Your task to perform on an android device: turn on data saver in the chrome app Image 0: 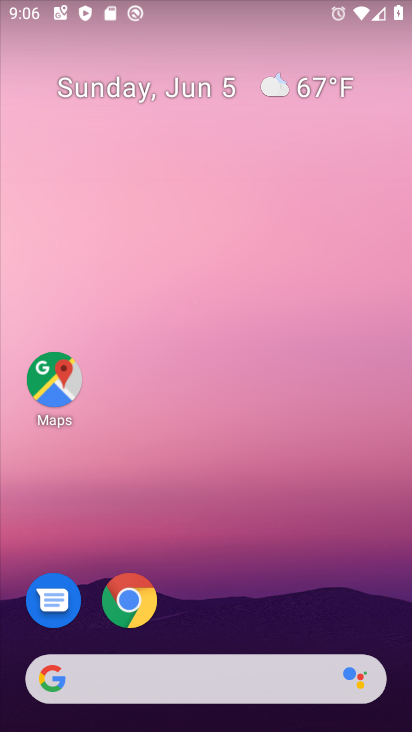
Step 0: drag from (359, 611) to (323, 86)
Your task to perform on an android device: turn on data saver in the chrome app Image 1: 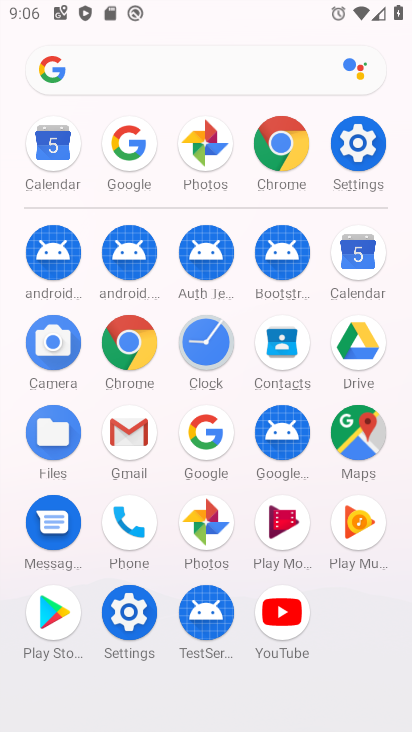
Step 1: click (285, 160)
Your task to perform on an android device: turn on data saver in the chrome app Image 2: 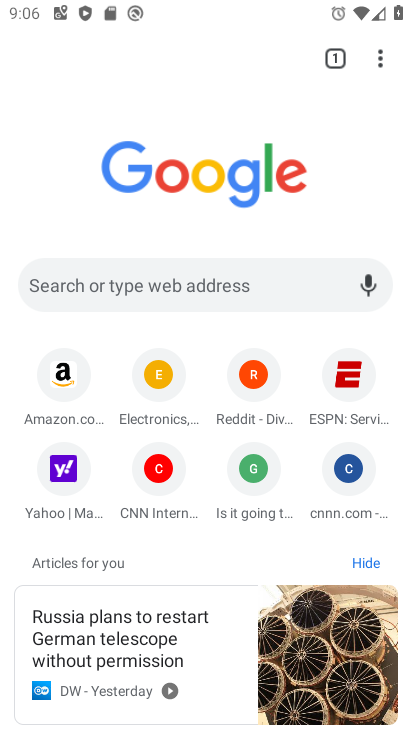
Step 2: click (383, 59)
Your task to perform on an android device: turn on data saver in the chrome app Image 3: 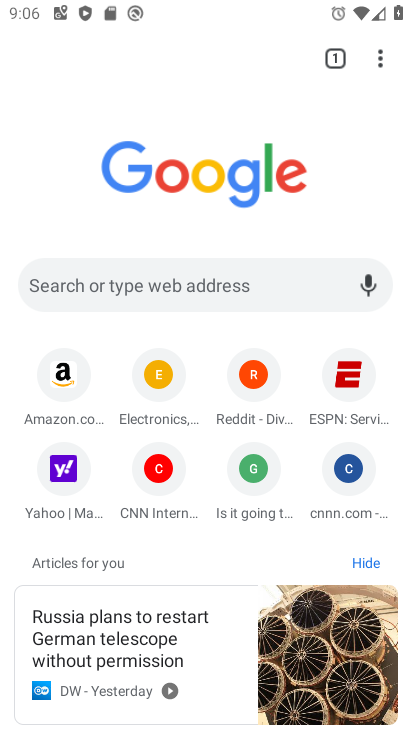
Step 3: click (379, 49)
Your task to perform on an android device: turn on data saver in the chrome app Image 4: 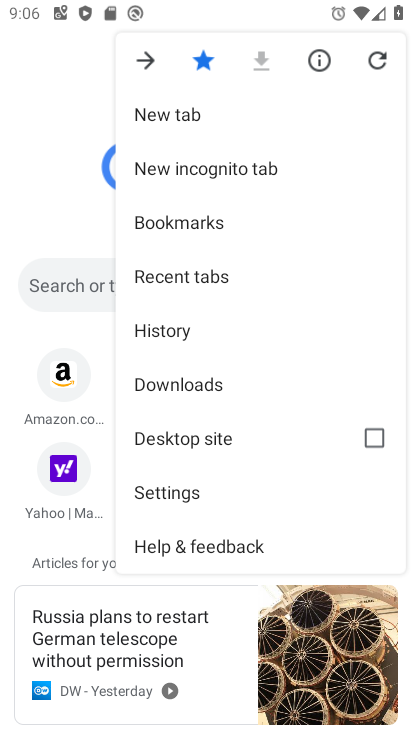
Step 4: click (215, 491)
Your task to perform on an android device: turn on data saver in the chrome app Image 5: 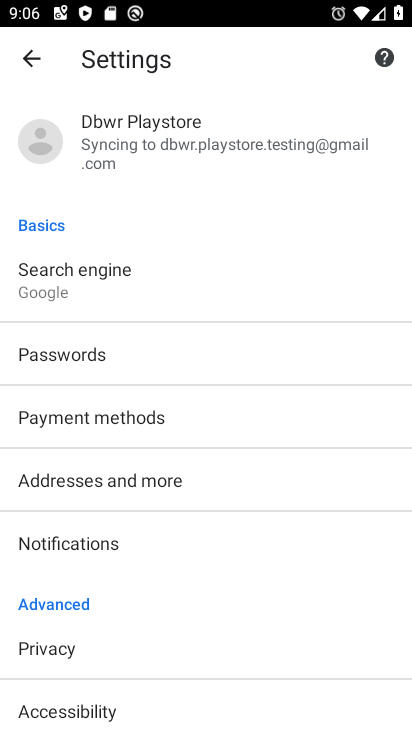
Step 5: drag from (174, 660) to (165, 400)
Your task to perform on an android device: turn on data saver in the chrome app Image 6: 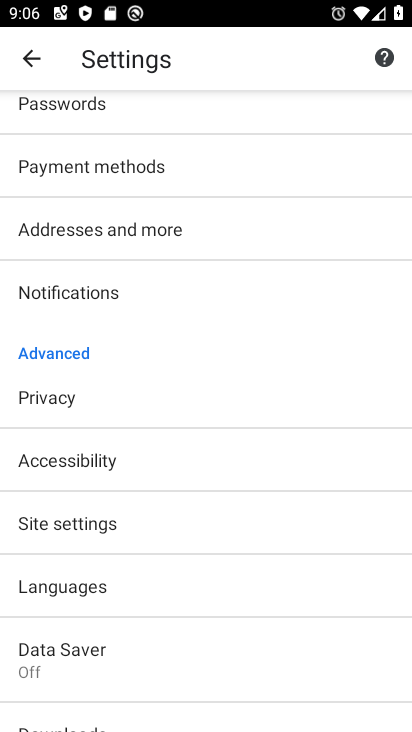
Step 6: click (140, 657)
Your task to perform on an android device: turn on data saver in the chrome app Image 7: 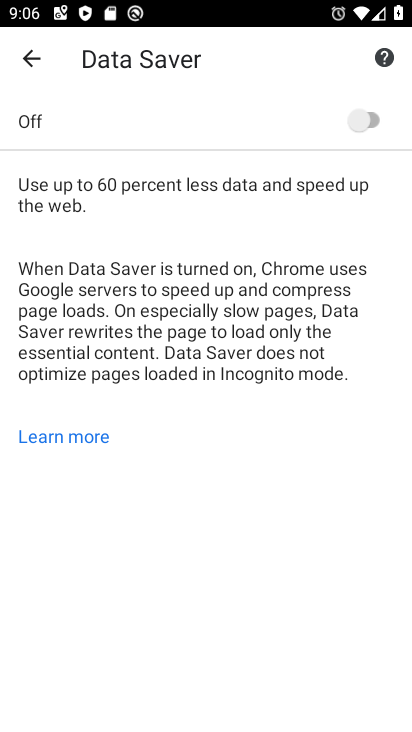
Step 7: click (357, 149)
Your task to perform on an android device: turn on data saver in the chrome app Image 8: 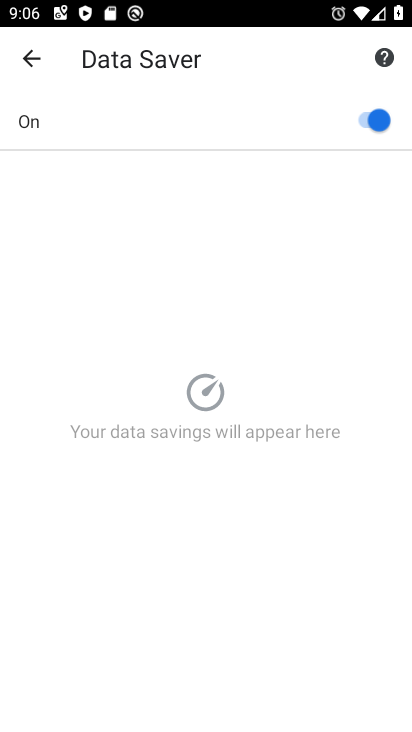
Step 8: task complete